Your task to perform on an android device: turn on sleep mode Image 0: 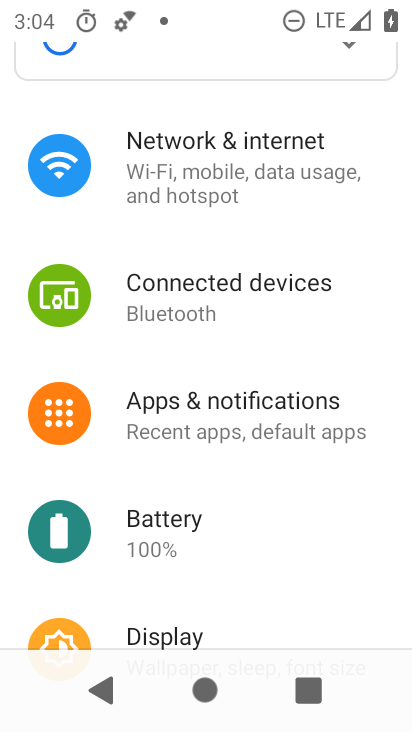
Step 0: drag from (323, 583) to (306, 372)
Your task to perform on an android device: turn on sleep mode Image 1: 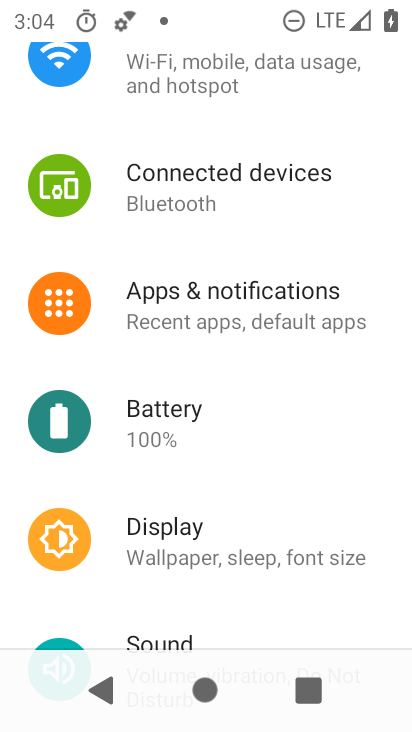
Step 1: click (215, 529)
Your task to perform on an android device: turn on sleep mode Image 2: 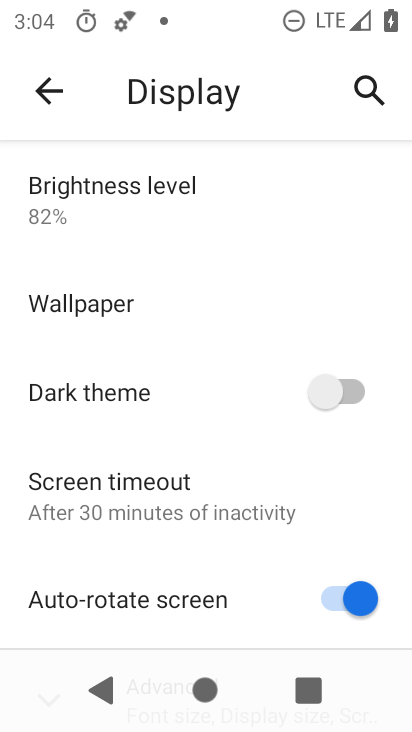
Step 2: click (99, 510)
Your task to perform on an android device: turn on sleep mode Image 3: 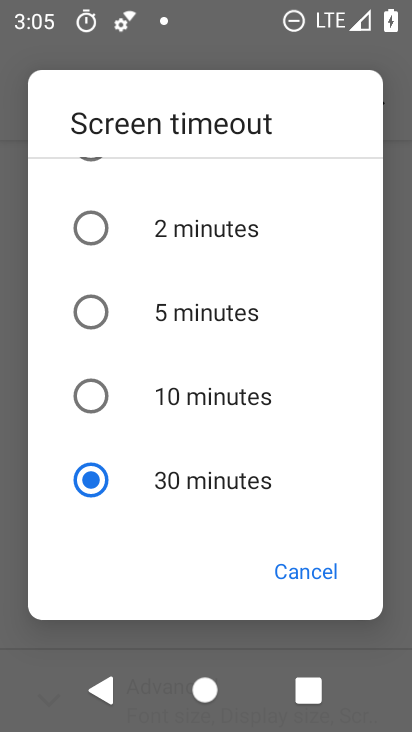
Step 3: click (142, 382)
Your task to perform on an android device: turn on sleep mode Image 4: 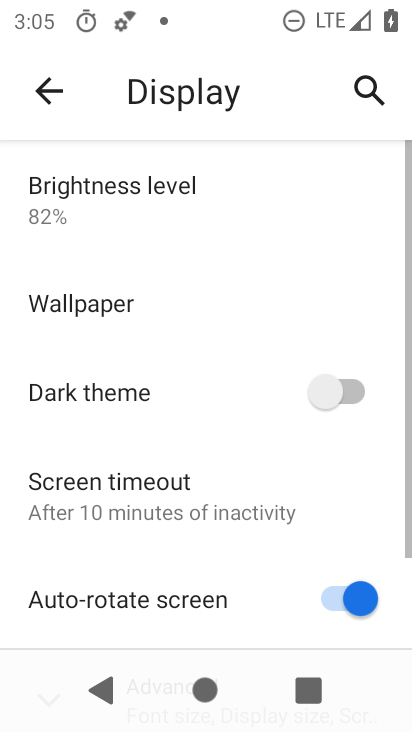
Step 4: task complete